Your task to perform on an android device: all mails in gmail Image 0: 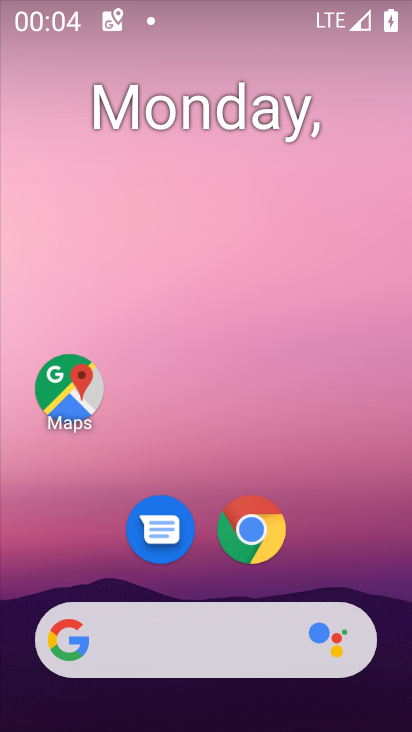
Step 0: drag from (352, 548) to (297, 74)
Your task to perform on an android device: all mails in gmail Image 1: 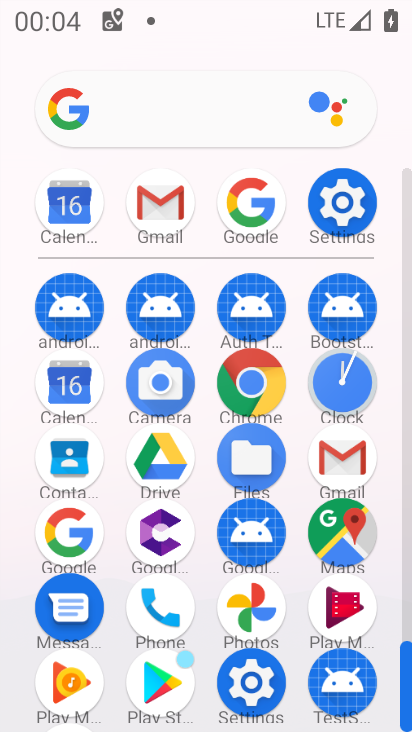
Step 1: click (158, 206)
Your task to perform on an android device: all mails in gmail Image 2: 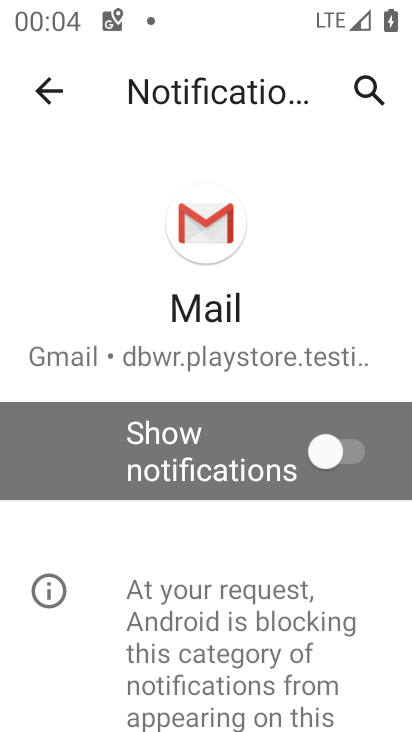
Step 2: press back button
Your task to perform on an android device: all mails in gmail Image 3: 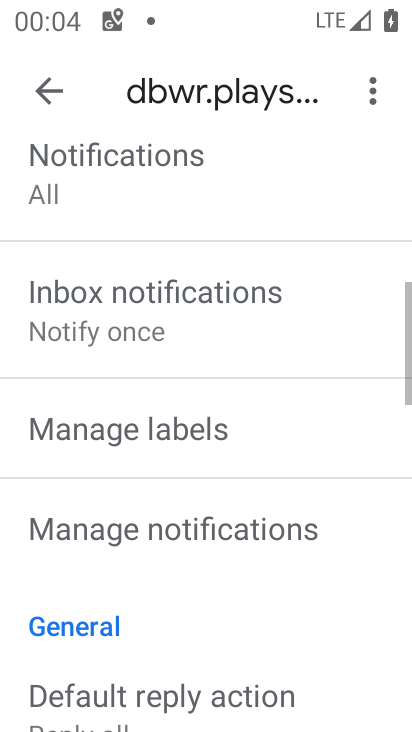
Step 3: press back button
Your task to perform on an android device: all mails in gmail Image 4: 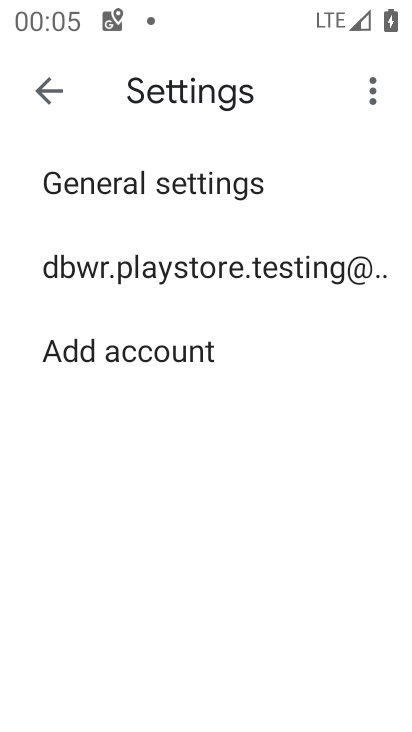
Step 4: press back button
Your task to perform on an android device: all mails in gmail Image 5: 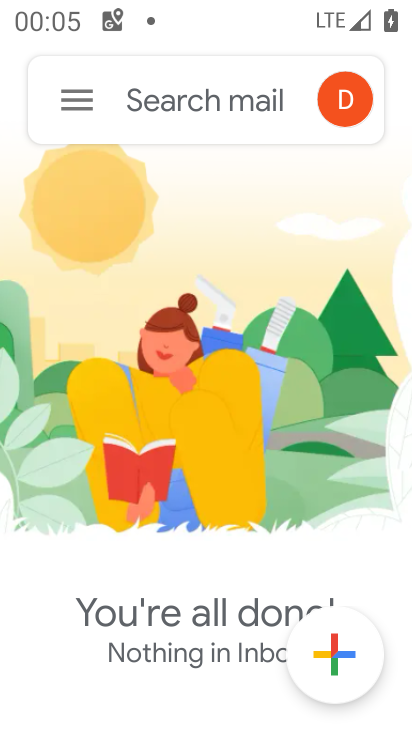
Step 5: click (77, 90)
Your task to perform on an android device: all mails in gmail Image 6: 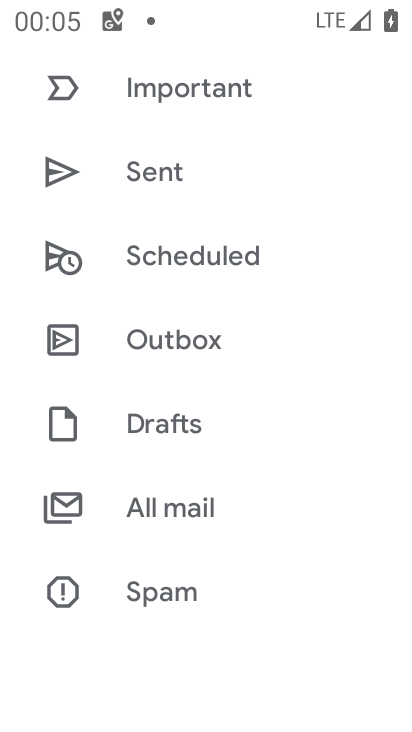
Step 6: click (210, 514)
Your task to perform on an android device: all mails in gmail Image 7: 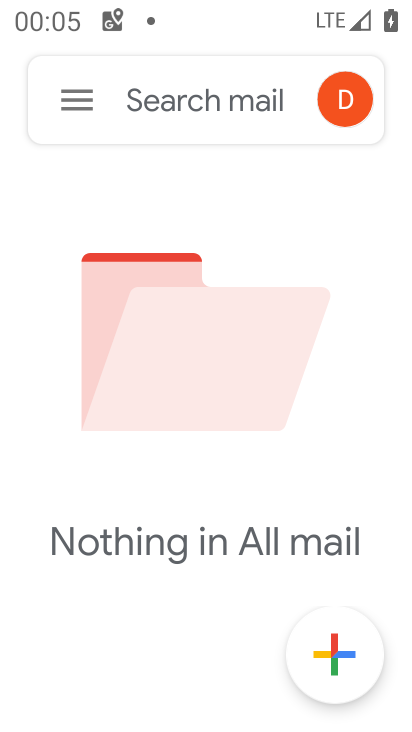
Step 7: task complete